Your task to perform on an android device: open sync settings in chrome Image 0: 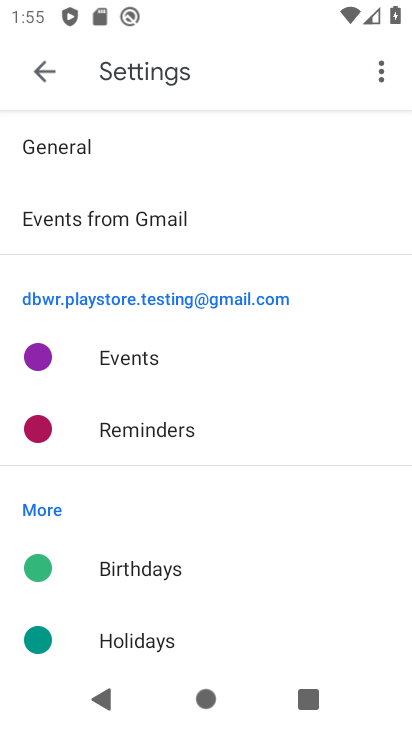
Step 0: press home button
Your task to perform on an android device: open sync settings in chrome Image 1: 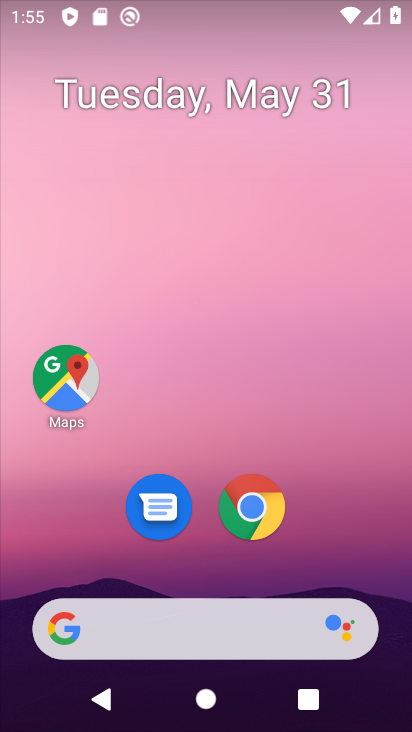
Step 1: click (245, 490)
Your task to perform on an android device: open sync settings in chrome Image 2: 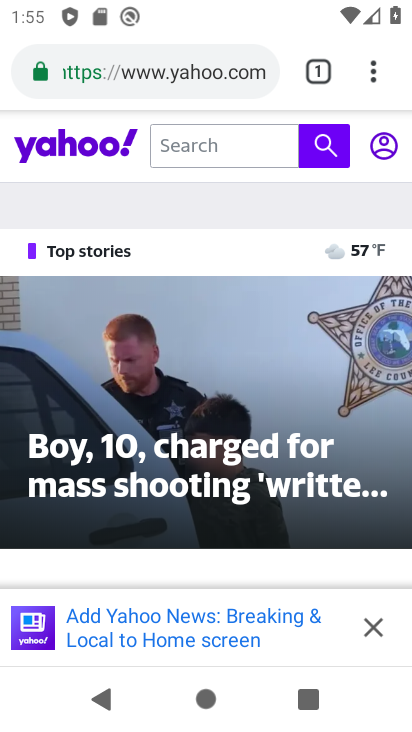
Step 2: click (386, 80)
Your task to perform on an android device: open sync settings in chrome Image 3: 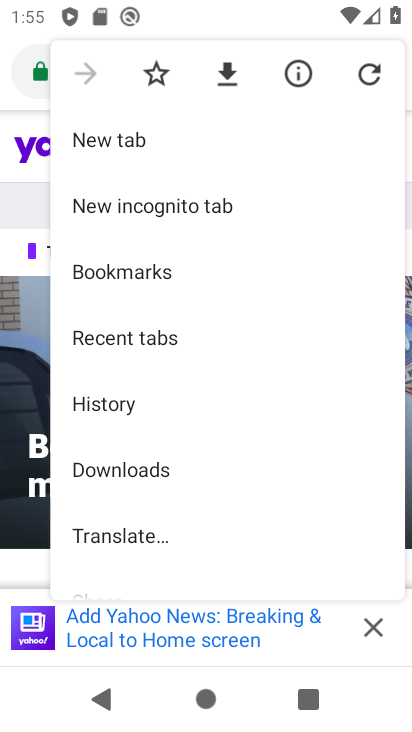
Step 3: drag from (157, 531) to (199, 109)
Your task to perform on an android device: open sync settings in chrome Image 4: 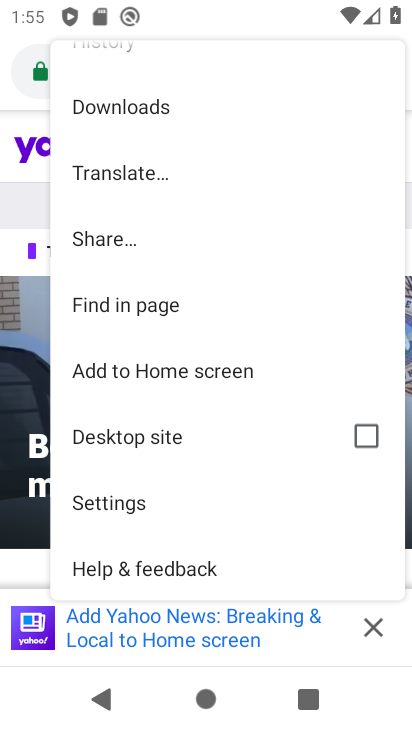
Step 4: click (137, 498)
Your task to perform on an android device: open sync settings in chrome Image 5: 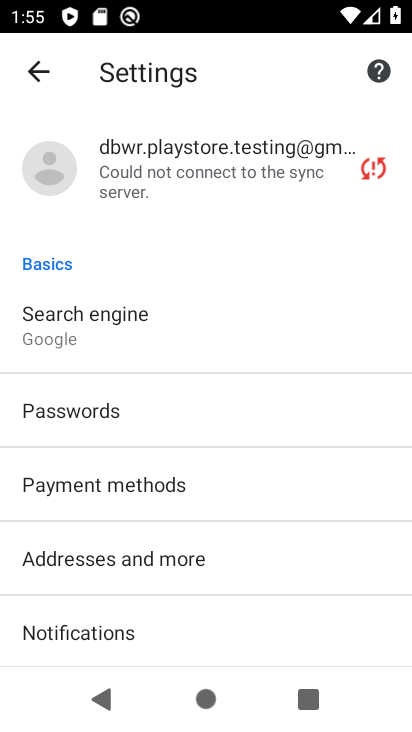
Step 5: click (150, 167)
Your task to perform on an android device: open sync settings in chrome Image 6: 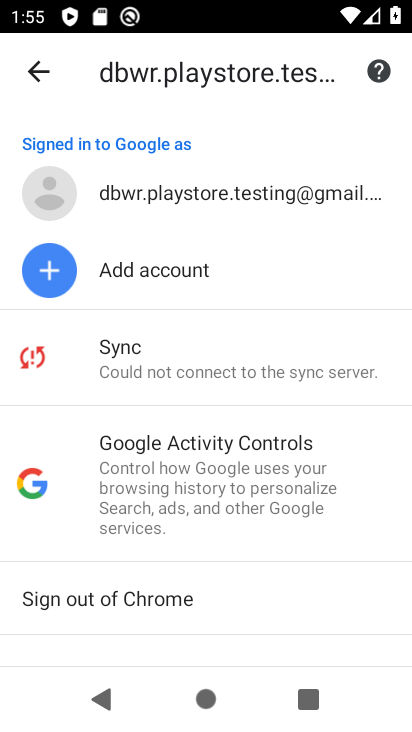
Step 6: click (148, 342)
Your task to perform on an android device: open sync settings in chrome Image 7: 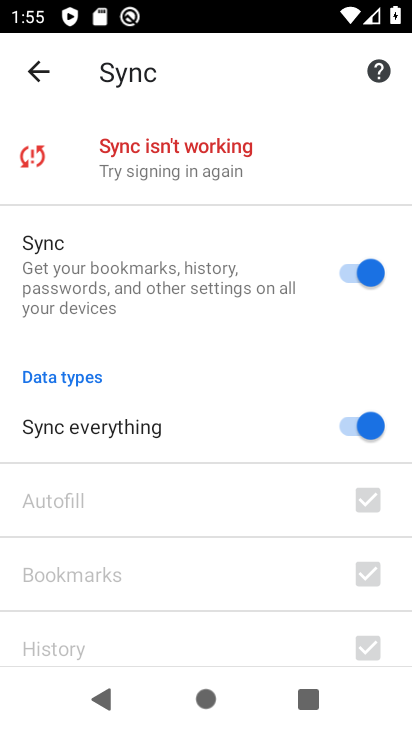
Step 7: task complete